Your task to perform on an android device: refresh tabs in the chrome app Image 0: 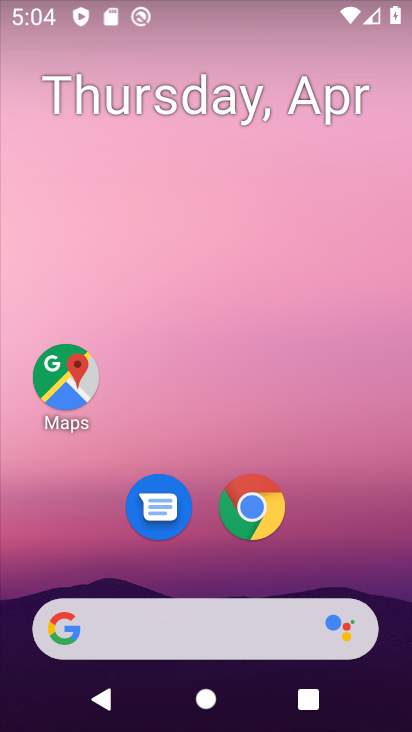
Step 0: drag from (386, 326) to (380, 193)
Your task to perform on an android device: refresh tabs in the chrome app Image 1: 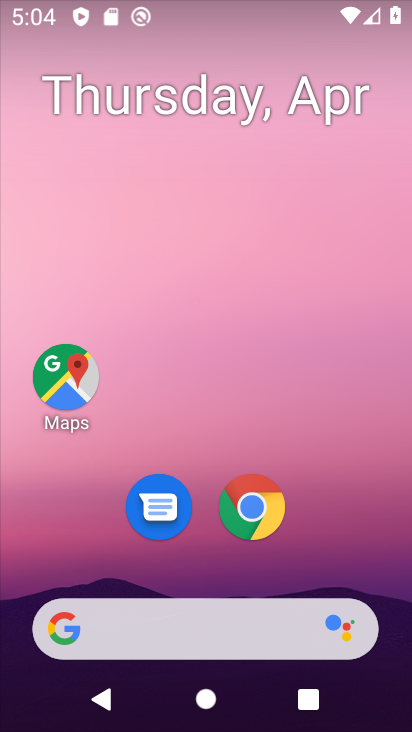
Step 1: click (244, 528)
Your task to perform on an android device: refresh tabs in the chrome app Image 2: 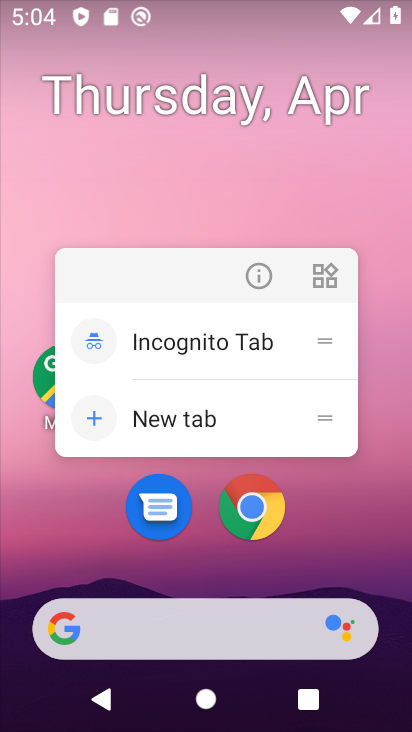
Step 2: click (250, 521)
Your task to perform on an android device: refresh tabs in the chrome app Image 3: 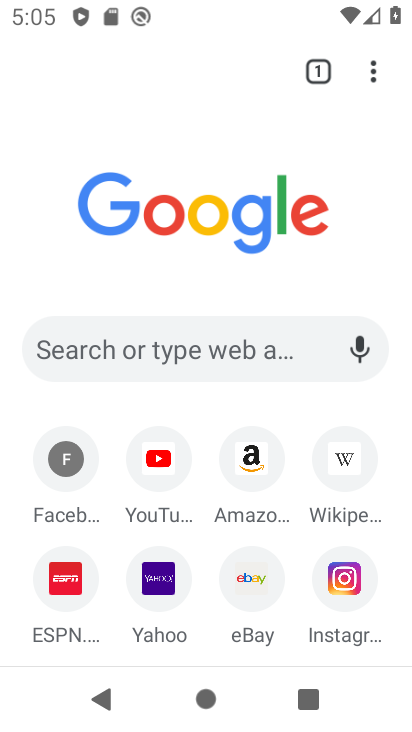
Step 3: click (377, 80)
Your task to perform on an android device: refresh tabs in the chrome app Image 4: 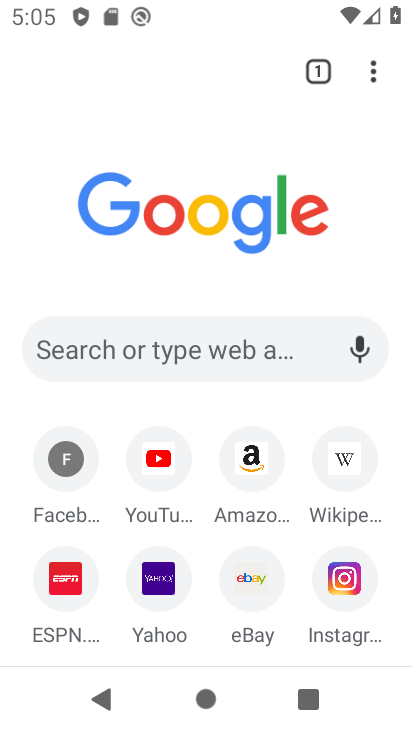
Step 4: click (369, 70)
Your task to perform on an android device: refresh tabs in the chrome app Image 5: 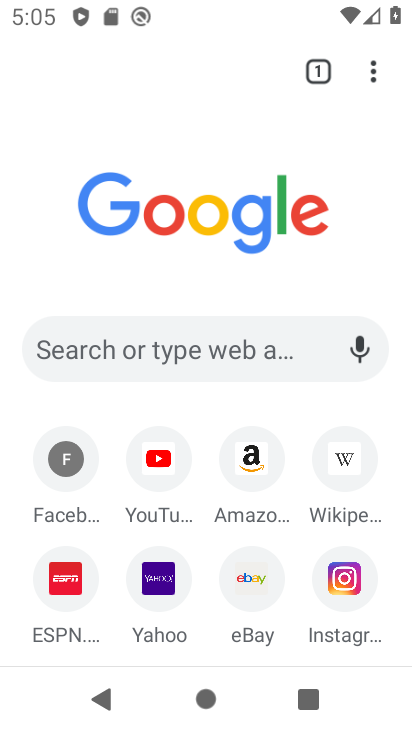
Step 5: click (369, 70)
Your task to perform on an android device: refresh tabs in the chrome app Image 6: 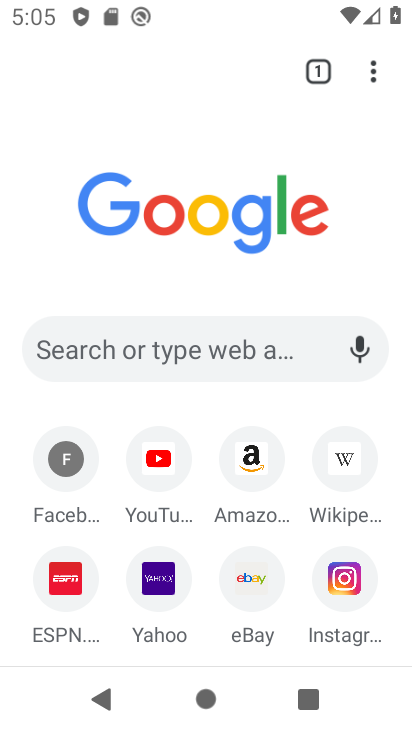
Step 6: click (375, 72)
Your task to perform on an android device: refresh tabs in the chrome app Image 7: 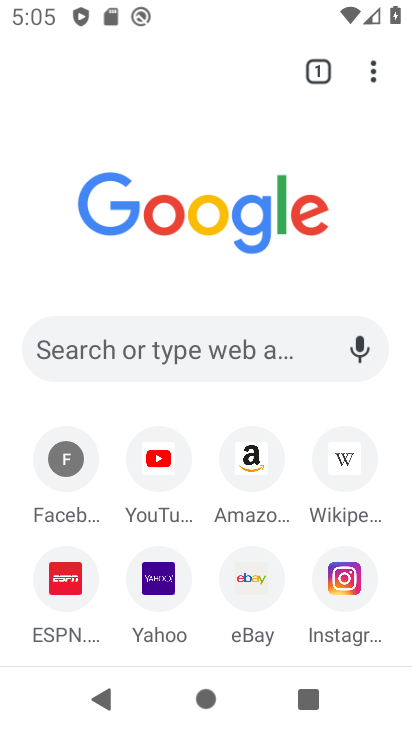
Step 7: click (366, 79)
Your task to perform on an android device: refresh tabs in the chrome app Image 8: 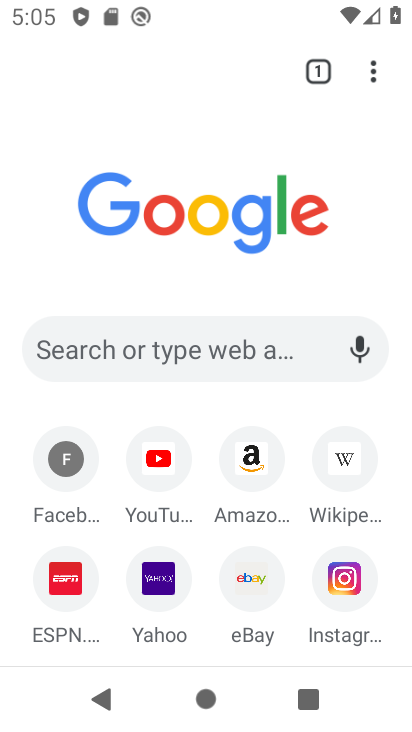
Step 8: click (370, 71)
Your task to perform on an android device: refresh tabs in the chrome app Image 9: 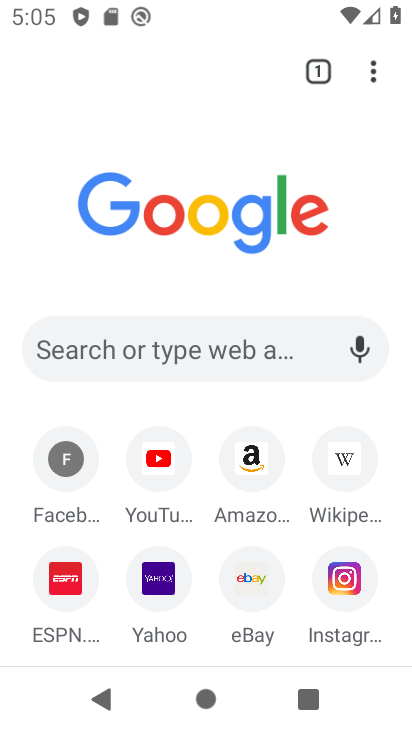
Step 9: click (324, 72)
Your task to perform on an android device: refresh tabs in the chrome app Image 10: 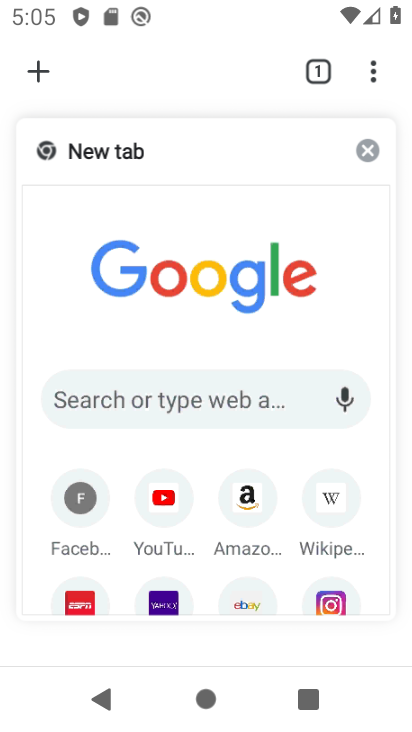
Step 10: click (227, 145)
Your task to perform on an android device: refresh tabs in the chrome app Image 11: 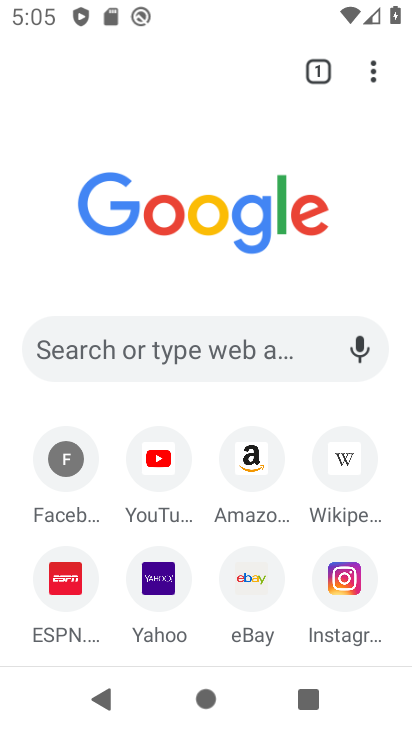
Step 11: click (372, 72)
Your task to perform on an android device: refresh tabs in the chrome app Image 12: 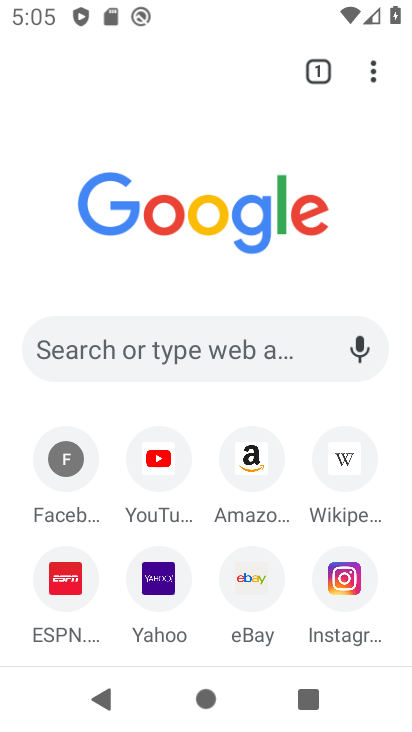
Step 12: click (371, 72)
Your task to perform on an android device: refresh tabs in the chrome app Image 13: 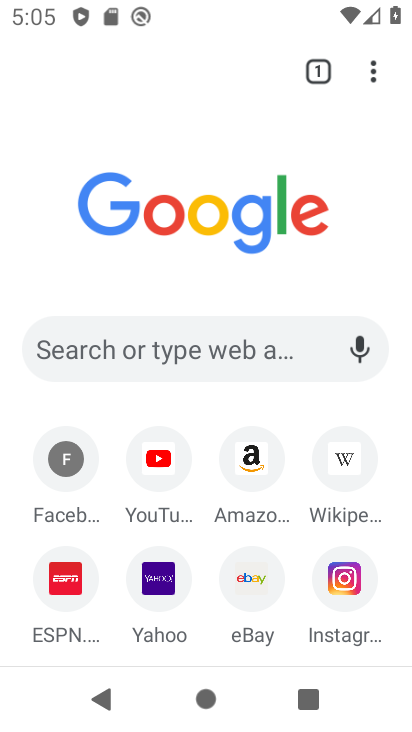
Step 13: click (373, 71)
Your task to perform on an android device: refresh tabs in the chrome app Image 14: 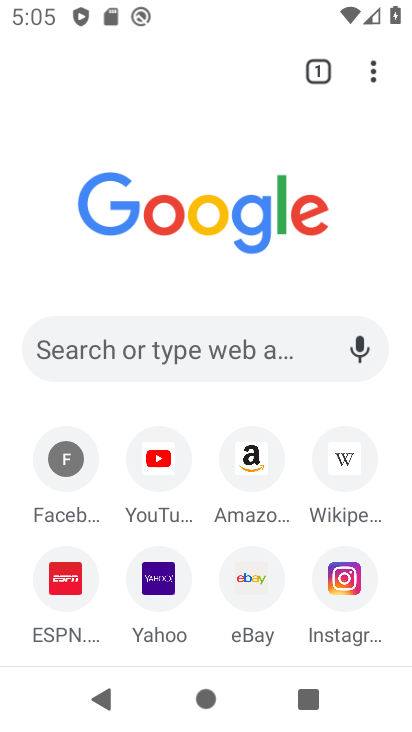
Step 14: click (373, 71)
Your task to perform on an android device: refresh tabs in the chrome app Image 15: 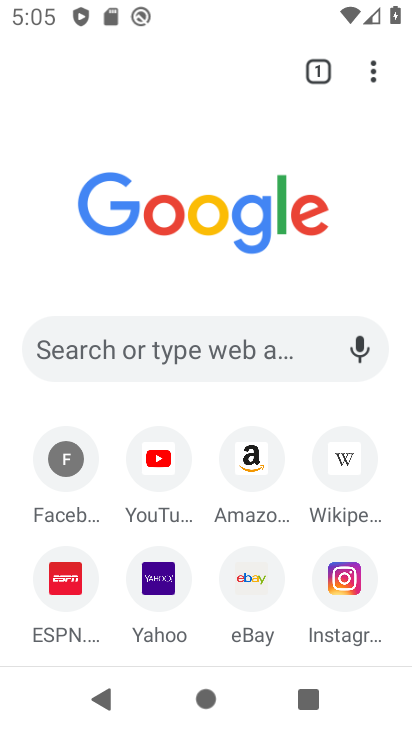
Step 15: click (373, 71)
Your task to perform on an android device: refresh tabs in the chrome app Image 16: 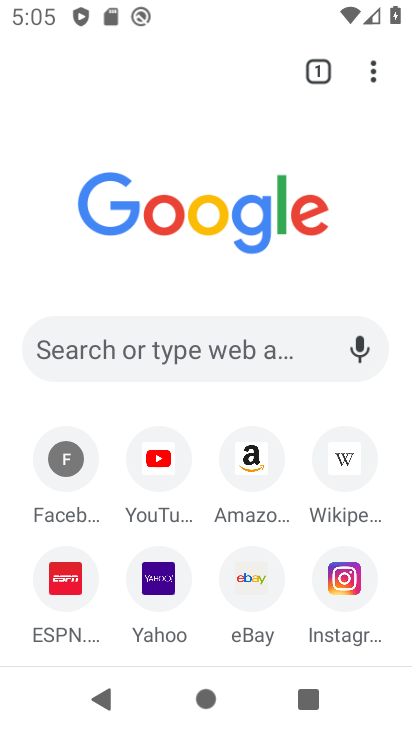
Step 16: click (372, 64)
Your task to perform on an android device: refresh tabs in the chrome app Image 17: 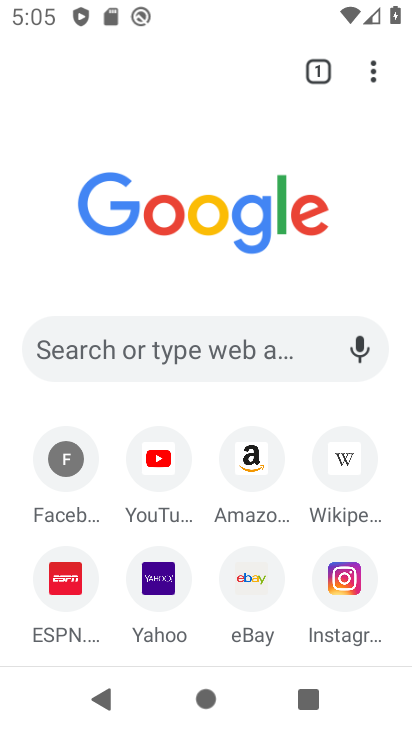
Step 17: click (371, 70)
Your task to perform on an android device: refresh tabs in the chrome app Image 18: 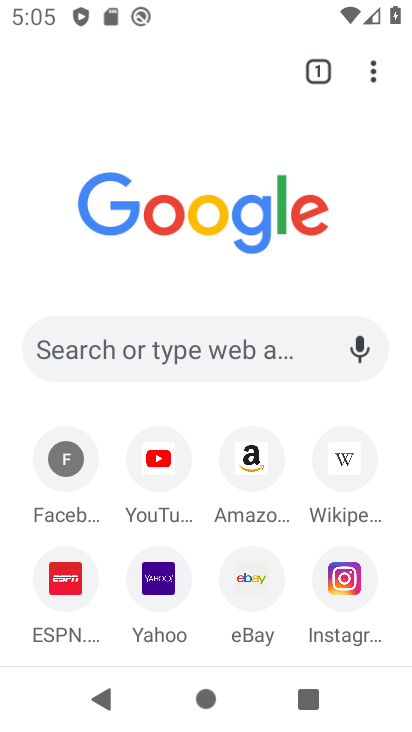
Step 18: click (374, 79)
Your task to perform on an android device: refresh tabs in the chrome app Image 19: 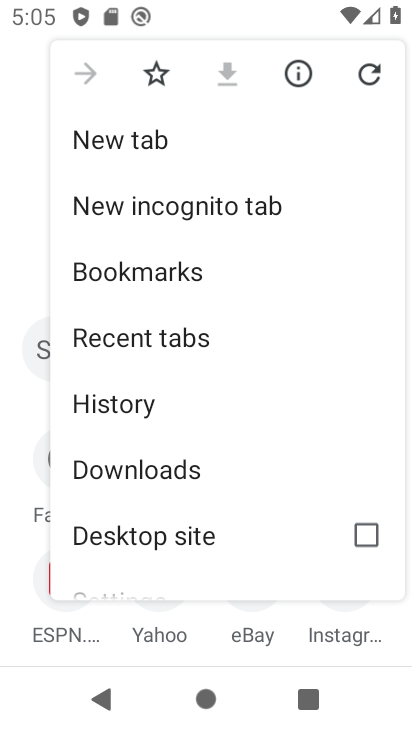
Step 19: click (368, 71)
Your task to perform on an android device: refresh tabs in the chrome app Image 20: 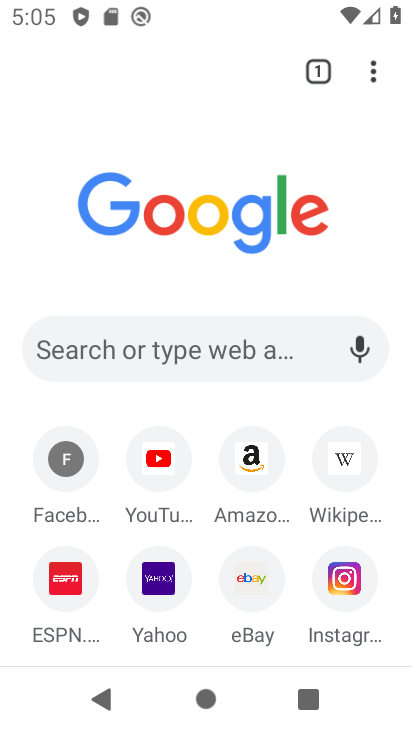
Step 20: task complete